Your task to perform on an android device: change notification settings in the gmail app Image 0: 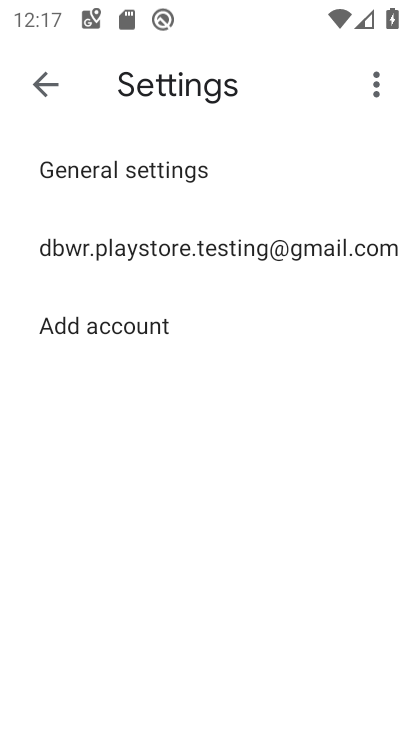
Step 0: press home button
Your task to perform on an android device: change notification settings in the gmail app Image 1: 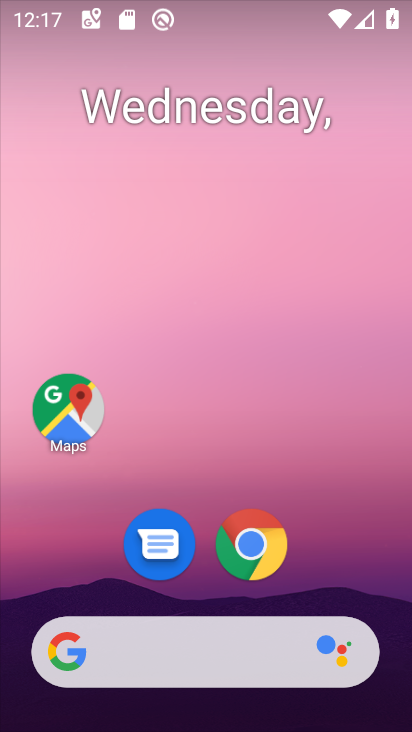
Step 1: drag from (203, 327) to (214, 124)
Your task to perform on an android device: change notification settings in the gmail app Image 2: 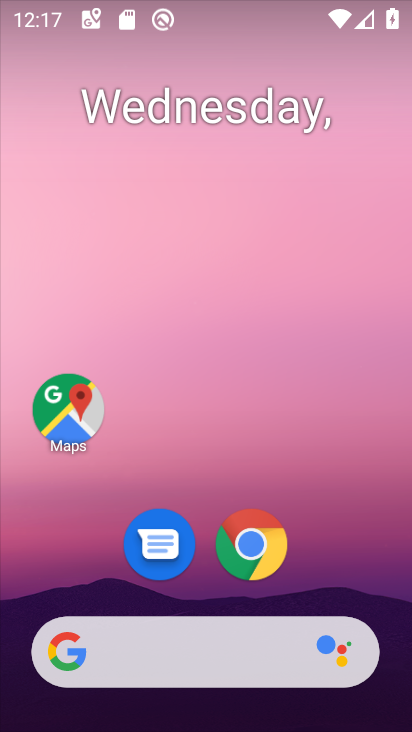
Step 2: drag from (212, 403) to (227, 73)
Your task to perform on an android device: change notification settings in the gmail app Image 3: 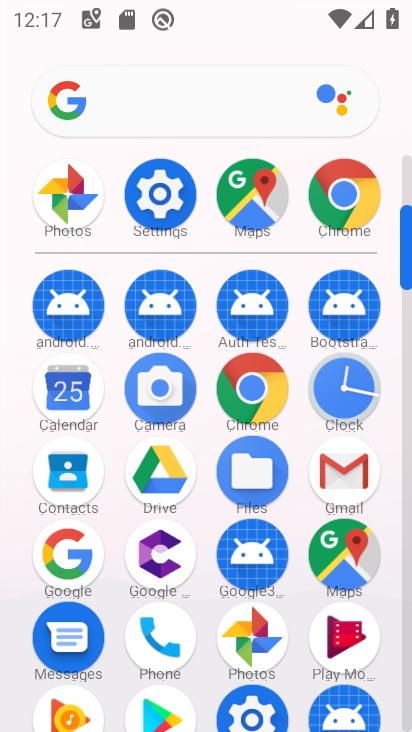
Step 3: drag from (214, 263) to (217, 131)
Your task to perform on an android device: change notification settings in the gmail app Image 4: 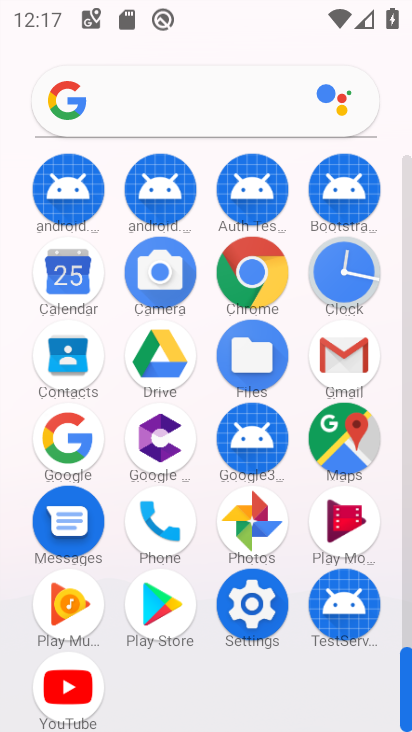
Step 4: click (322, 360)
Your task to perform on an android device: change notification settings in the gmail app Image 5: 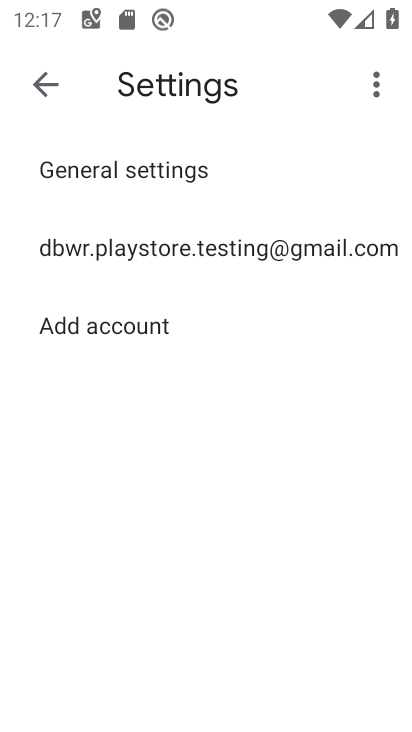
Step 5: click (246, 252)
Your task to perform on an android device: change notification settings in the gmail app Image 6: 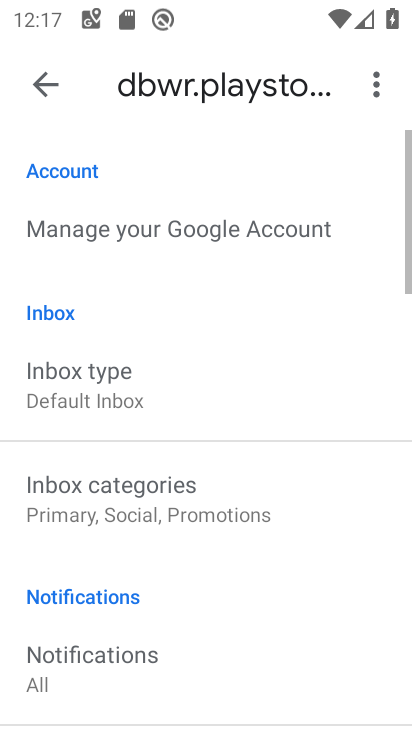
Step 6: drag from (180, 502) to (172, 186)
Your task to perform on an android device: change notification settings in the gmail app Image 7: 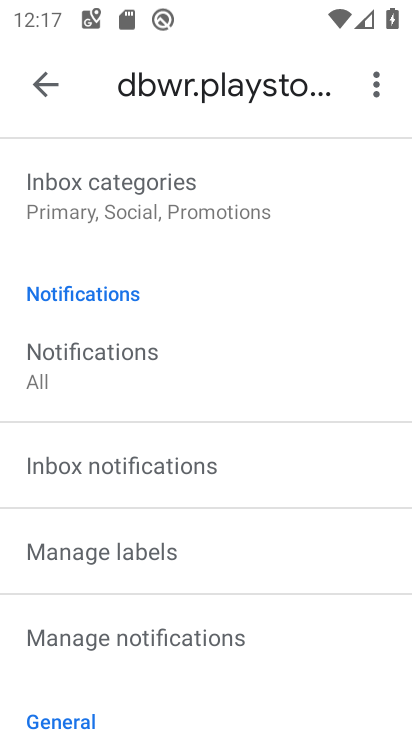
Step 7: click (148, 642)
Your task to perform on an android device: change notification settings in the gmail app Image 8: 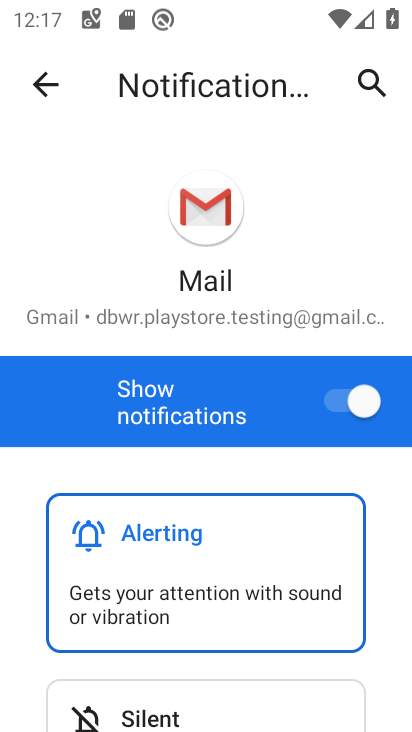
Step 8: drag from (309, 466) to (287, 286)
Your task to perform on an android device: change notification settings in the gmail app Image 9: 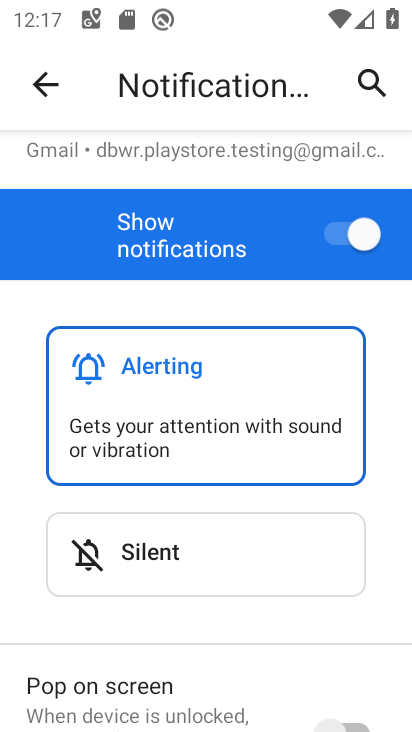
Step 9: click (363, 233)
Your task to perform on an android device: change notification settings in the gmail app Image 10: 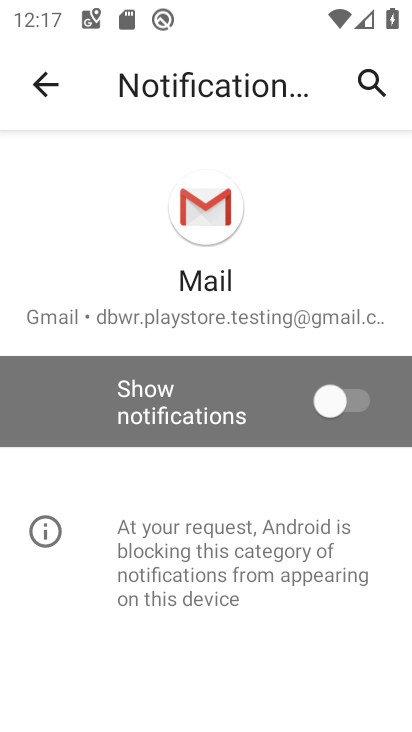
Step 10: task complete